Your task to perform on an android device: check google app version Image 0: 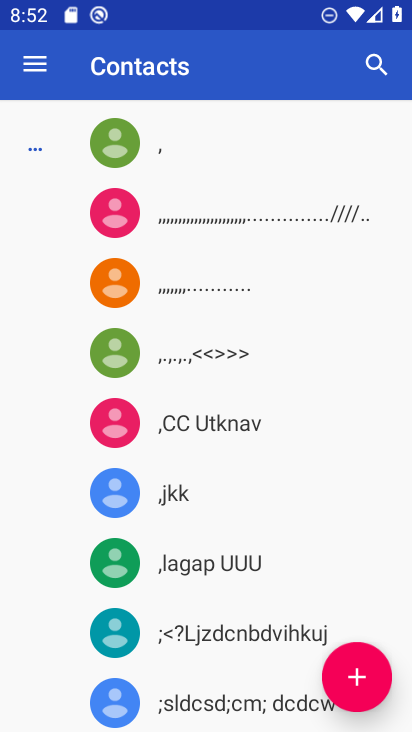
Step 0: press home button
Your task to perform on an android device: check google app version Image 1: 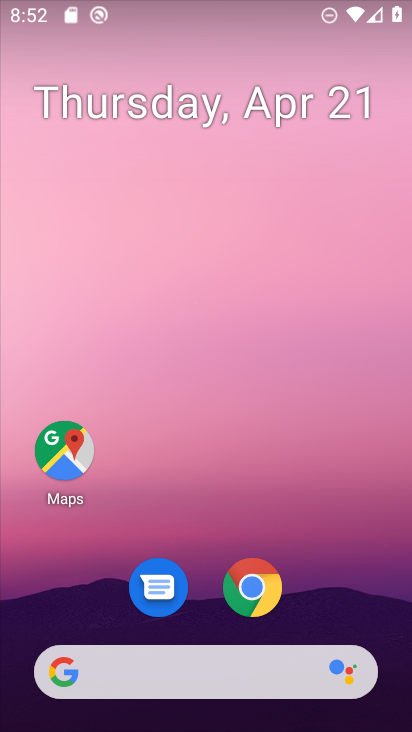
Step 1: drag from (336, 589) to (263, 188)
Your task to perform on an android device: check google app version Image 2: 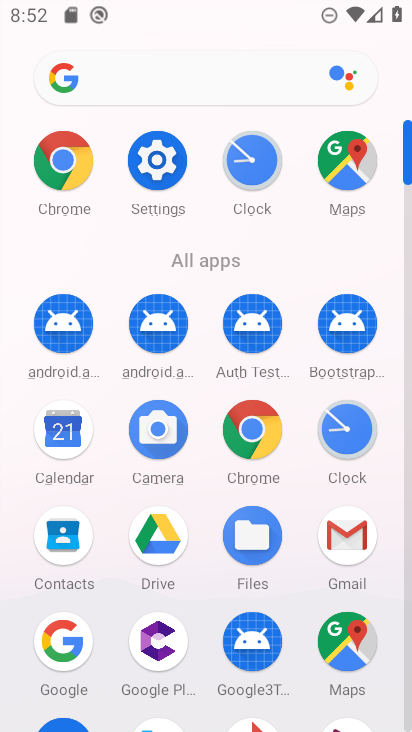
Step 2: click (56, 651)
Your task to perform on an android device: check google app version Image 3: 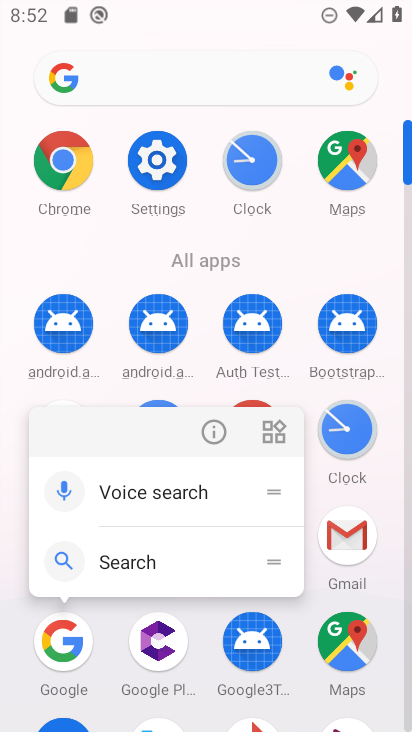
Step 3: click (58, 639)
Your task to perform on an android device: check google app version Image 4: 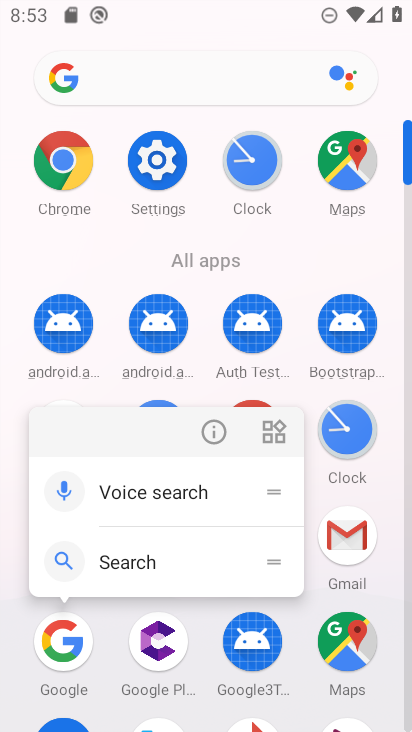
Step 4: click (55, 648)
Your task to perform on an android device: check google app version Image 5: 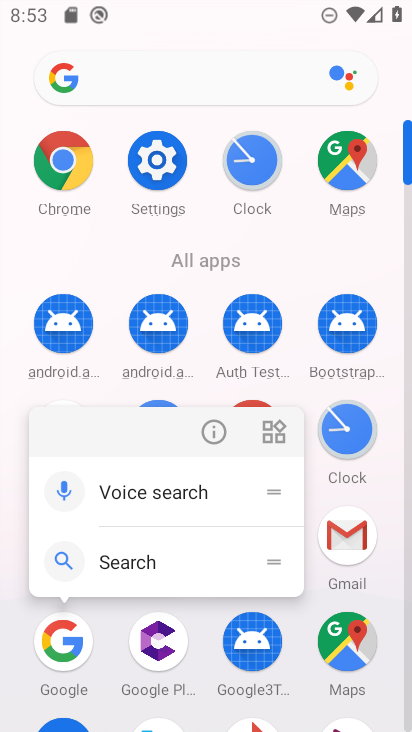
Step 5: click (56, 646)
Your task to perform on an android device: check google app version Image 6: 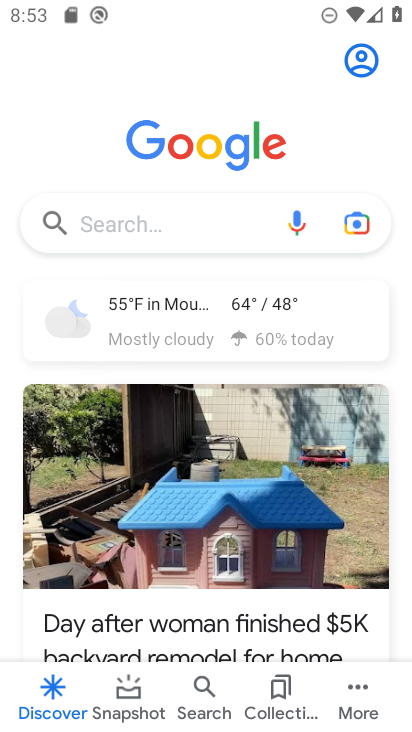
Step 6: click (361, 697)
Your task to perform on an android device: check google app version Image 7: 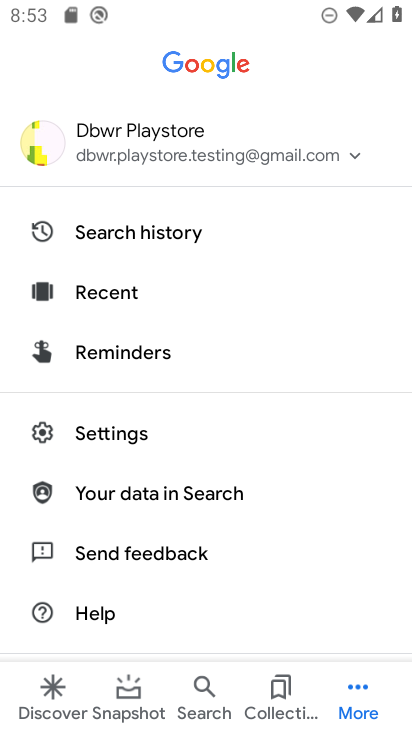
Step 7: drag from (304, 558) to (251, 334)
Your task to perform on an android device: check google app version Image 8: 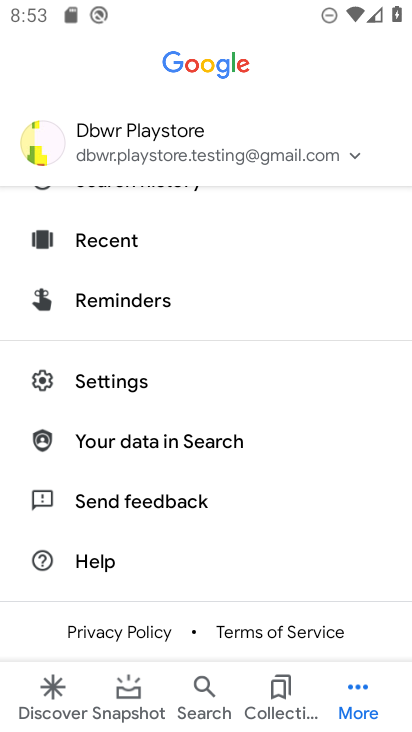
Step 8: click (123, 371)
Your task to perform on an android device: check google app version Image 9: 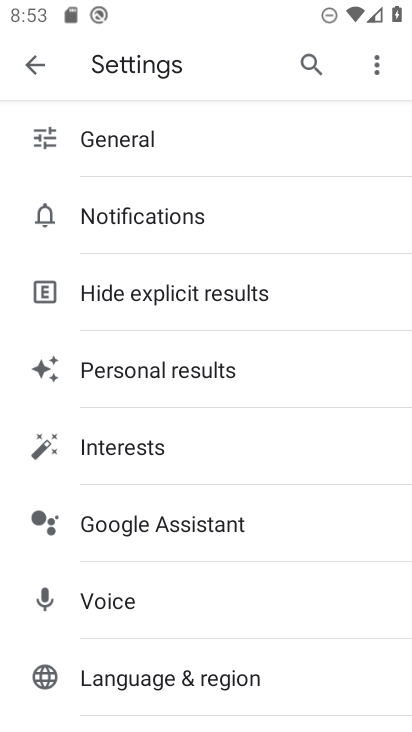
Step 9: drag from (378, 555) to (328, 421)
Your task to perform on an android device: check google app version Image 10: 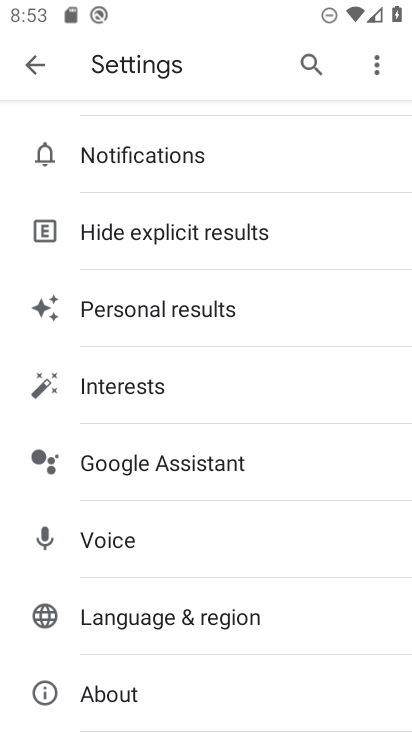
Step 10: click (122, 692)
Your task to perform on an android device: check google app version Image 11: 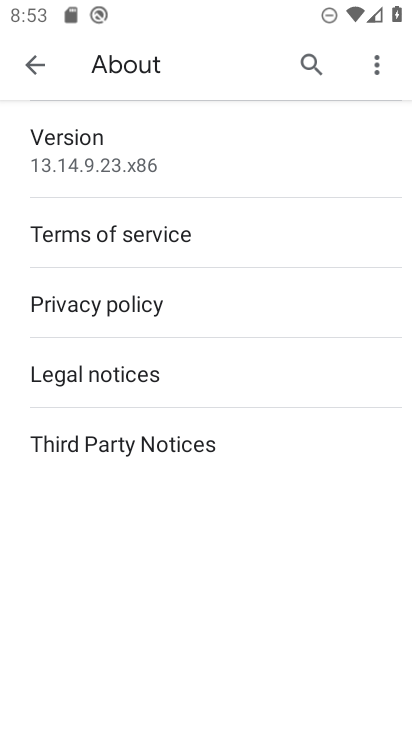
Step 11: click (202, 160)
Your task to perform on an android device: check google app version Image 12: 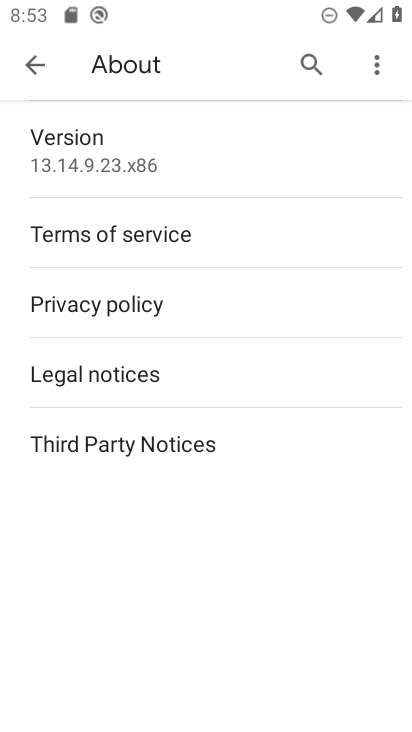
Step 12: task complete